Your task to perform on an android device: open app "Flipkart Online Shopping App" (install if not already installed) and enter user name: "fostered@gmail.com" and password: "negotiated" Image 0: 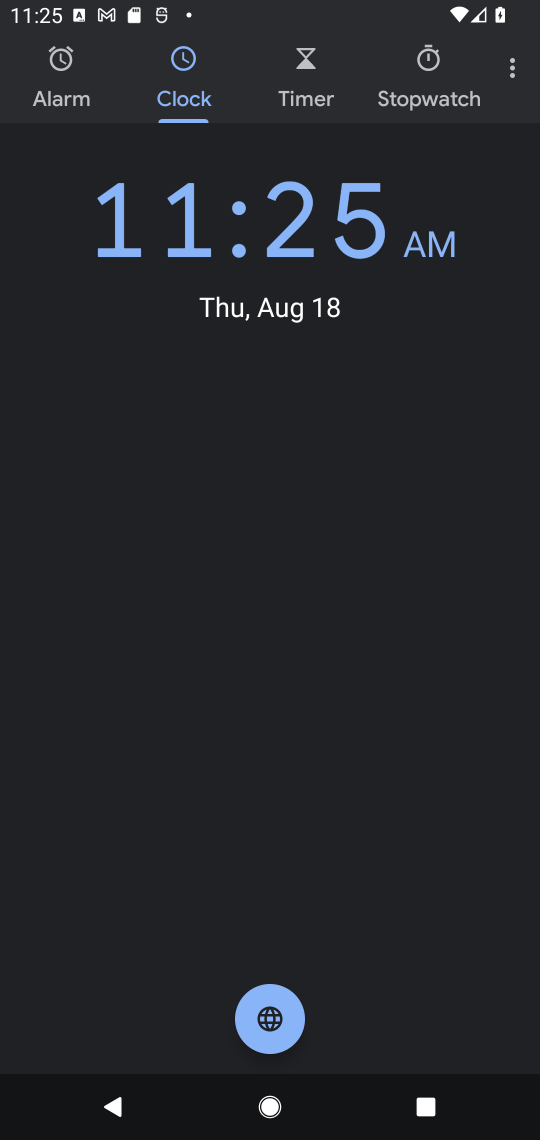
Step 0: press home button
Your task to perform on an android device: open app "Flipkart Online Shopping App" (install if not already installed) and enter user name: "fostered@gmail.com" and password: "negotiated" Image 1: 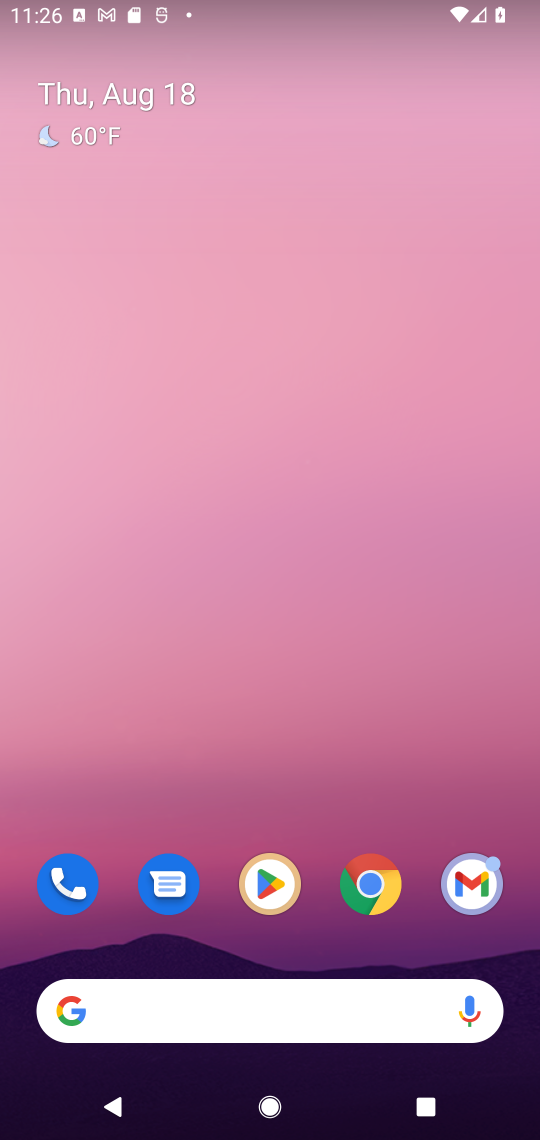
Step 1: drag from (208, 1015) to (252, 93)
Your task to perform on an android device: open app "Flipkart Online Shopping App" (install if not already installed) and enter user name: "fostered@gmail.com" and password: "negotiated" Image 2: 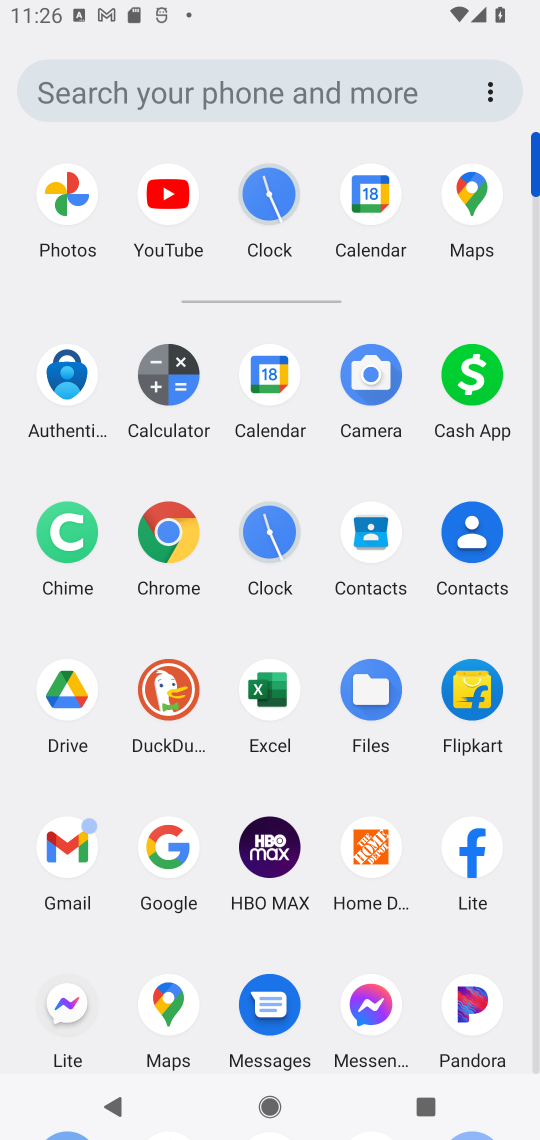
Step 2: drag from (316, 970) to (327, 429)
Your task to perform on an android device: open app "Flipkart Online Shopping App" (install if not already installed) and enter user name: "fostered@gmail.com" and password: "negotiated" Image 3: 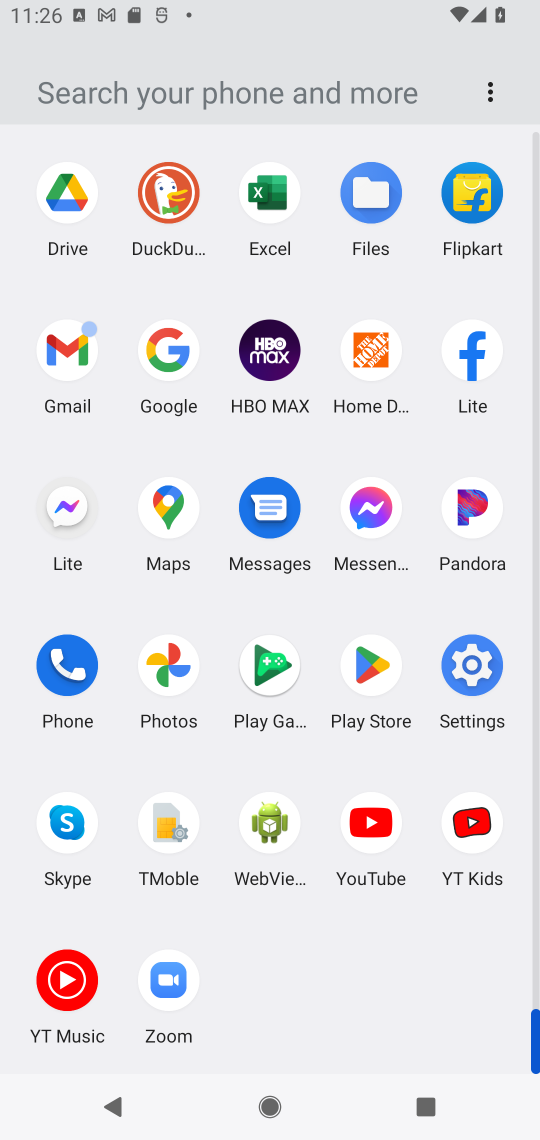
Step 3: click (369, 662)
Your task to perform on an android device: open app "Flipkart Online Shopping App" (install if not already installed) and enter user name: "fostered@gmail.com" and password: "negotiated" Image 4: 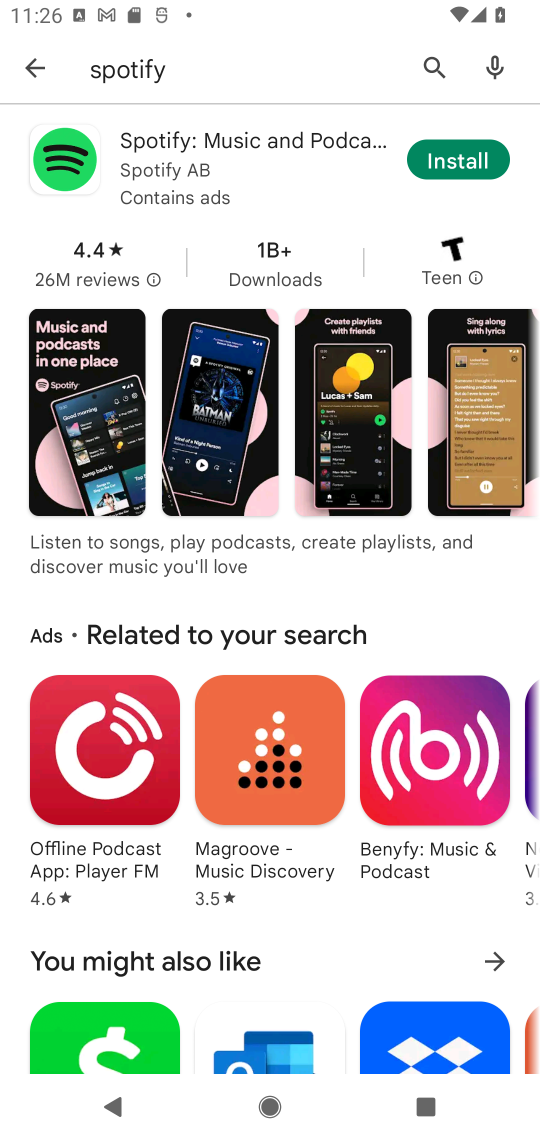
Step 4: press back button
Your task to perform on an android device: open app "Flipkart Online Shopping App" (install if not already installed) and enter user name: "fostered@gmail.com" and password: "negotiated" Image 5: 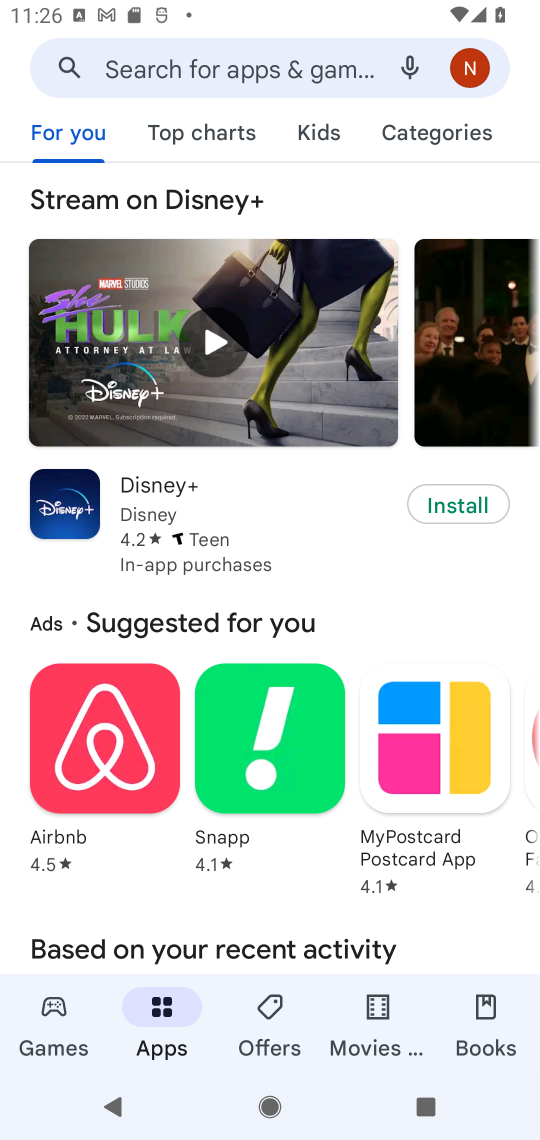
Step 5: click (263, 76)
Your task to perform on an android device: open app "Flipkart Online Shopping App" (install if not already installed) and enter user name: "fostered@gmail.com" and password: "negotiated" Image 6: 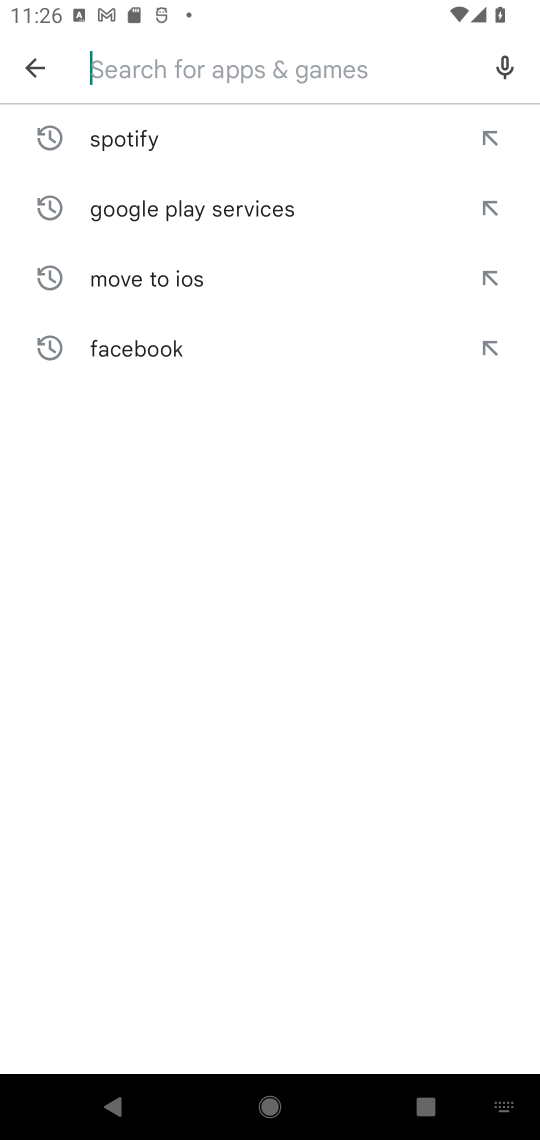
Step 6: type "Flipkart Online Shopping App"
Your task to perform on an android device: open app "Flipkart Online Shopping App" (install if not already installed) and enter user name: "fostered@gmail.com" and password: "negotiated" Image 7: 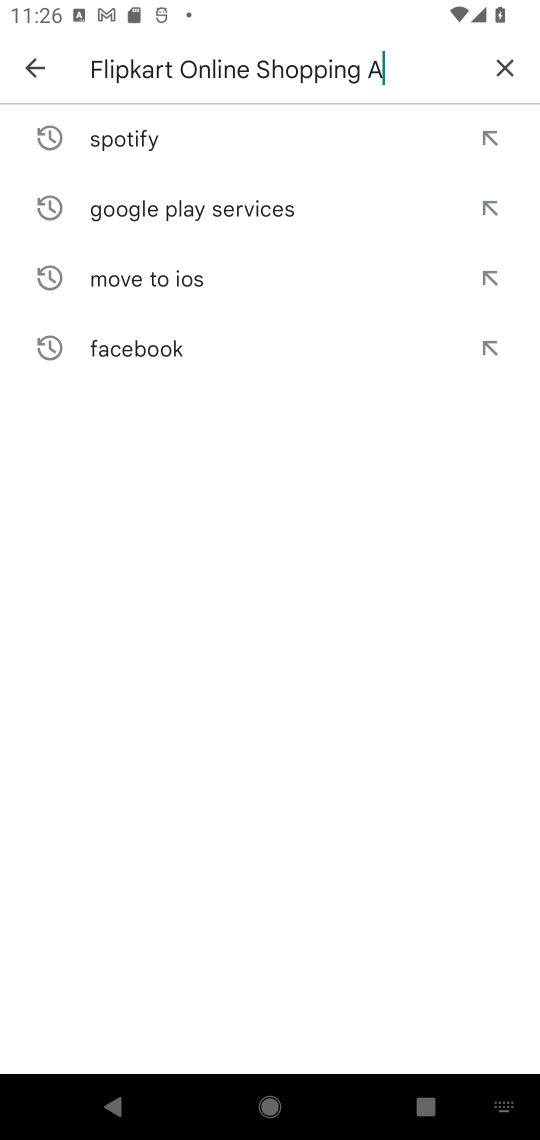
Step 7: type ""
Your task to perform on an android device: open app "Flipkart Online Shopping App" (install if not already installed) and enter user name: "fostered@gmail.com" and password: "negotiated" Image 8: 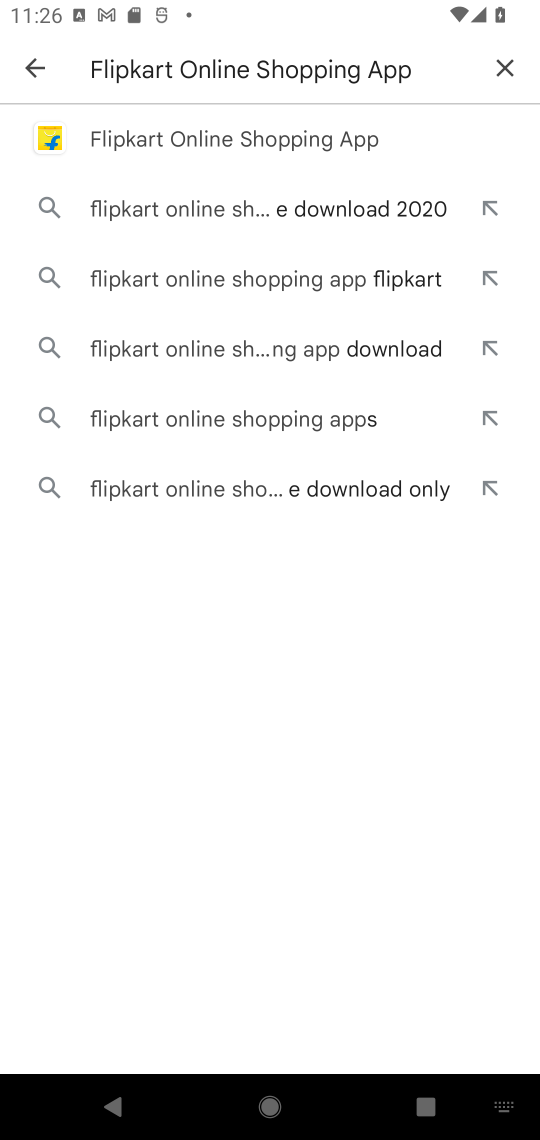
Step 8: click (180, 141)
Your task to perform on an android device: open app "Flipkart Online Shopping App" (install if not already installed) and enter user name: "fostered@gmail.com" and password: "negotiated" Image 9: 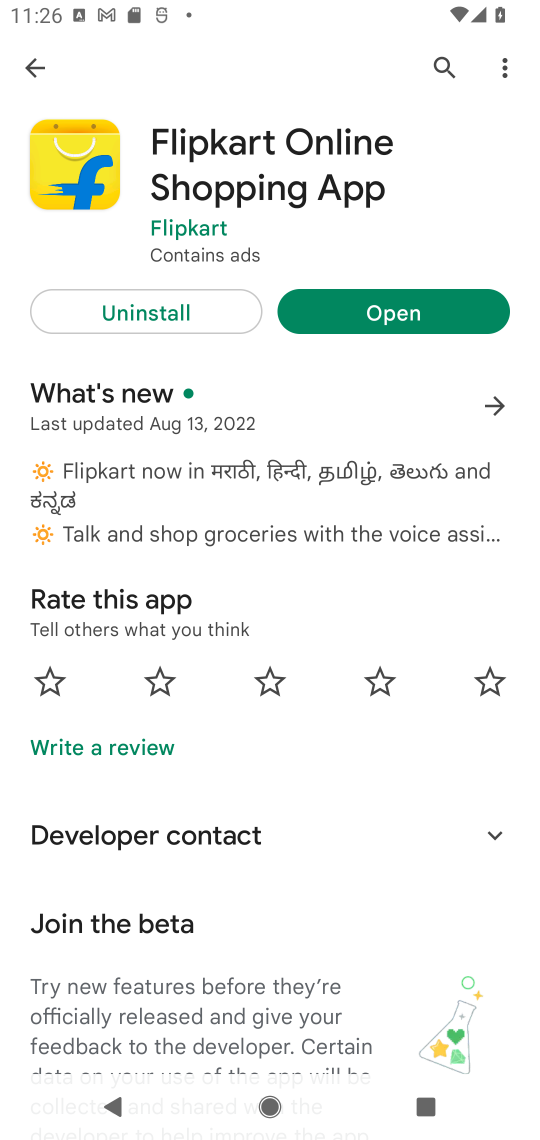
Step 9: click (398, 313)
Your task to perform on an android device: open app "Flipkart Online Shopping App" (install if not already installed) and enter user name: "fostered@gmail.com" and password: "negotiated" Image 10: 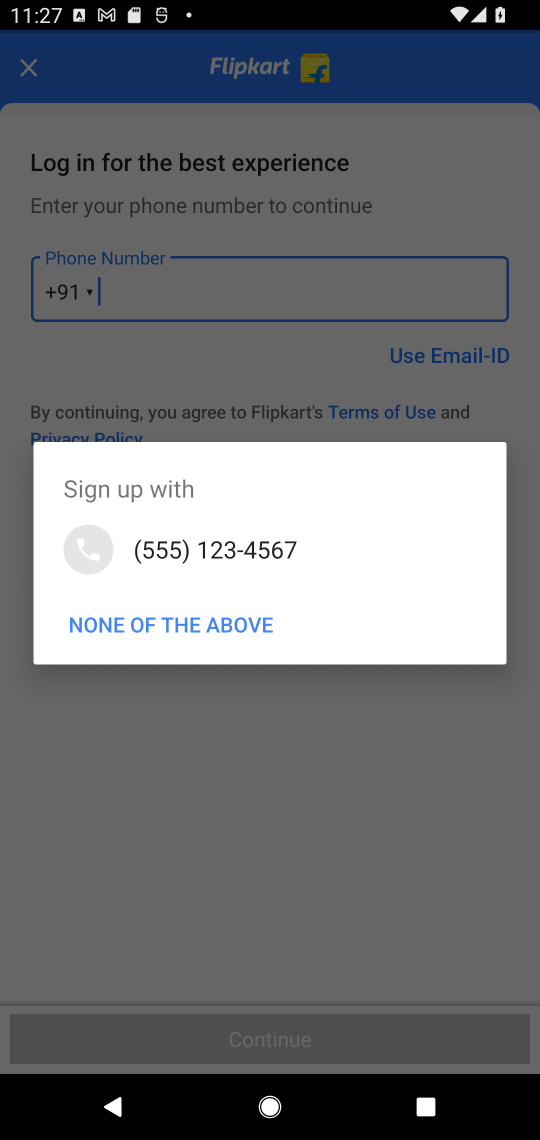
Step 10: click (216, 550)
Your task to perform on an android device: open app "Flipkart Online Shopping App" (install if not already installed) and enter user name: "fostered@gmail.com" and password: "negotiated" Image 11: 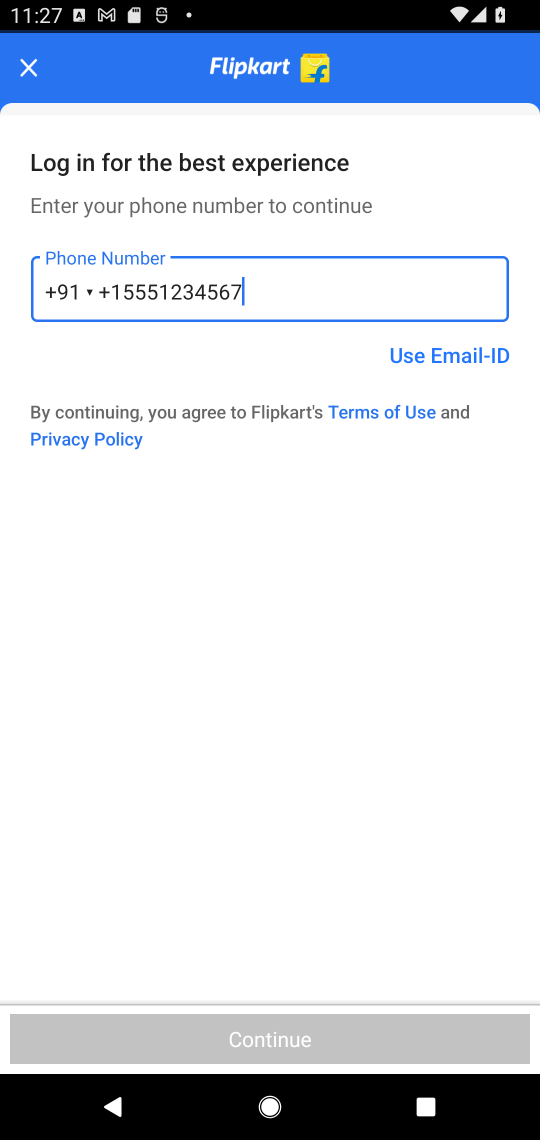
Step 11: click (434, 364)
Your task to perform on an android device: open app "Flipkart Online Shopping App" (install if not already installed) and enter user name: "fostered@gmail.com" and password: "negotiated" Image 12: 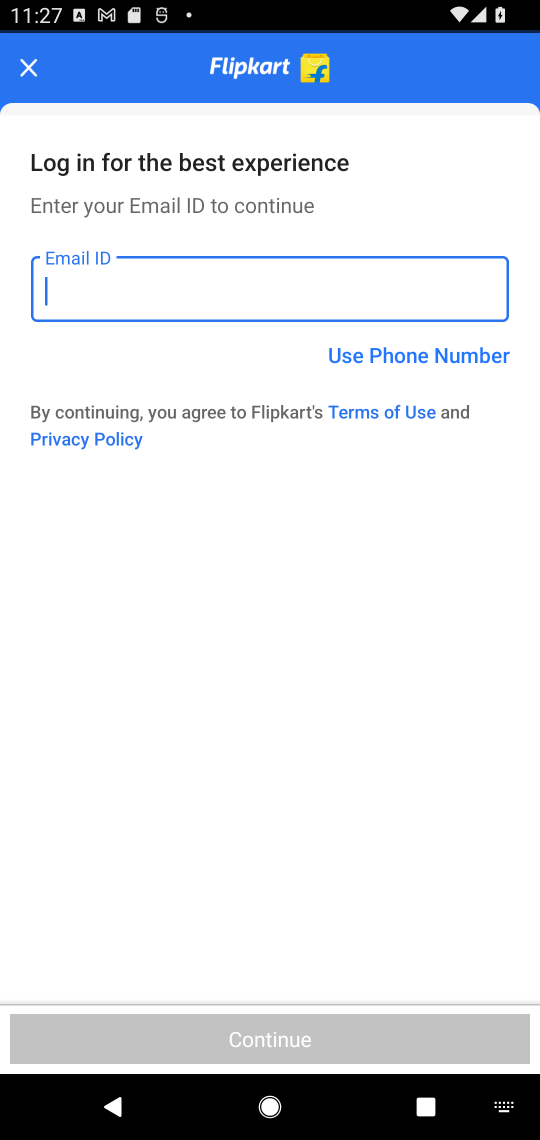
Step 12: click (151, 263)
Your task to perform on an android device: open app "Flipkart Online Shopping App" (install if not already installed) and enter user name: "fostered@gmail.com" and password: "negotiated" Image 13: 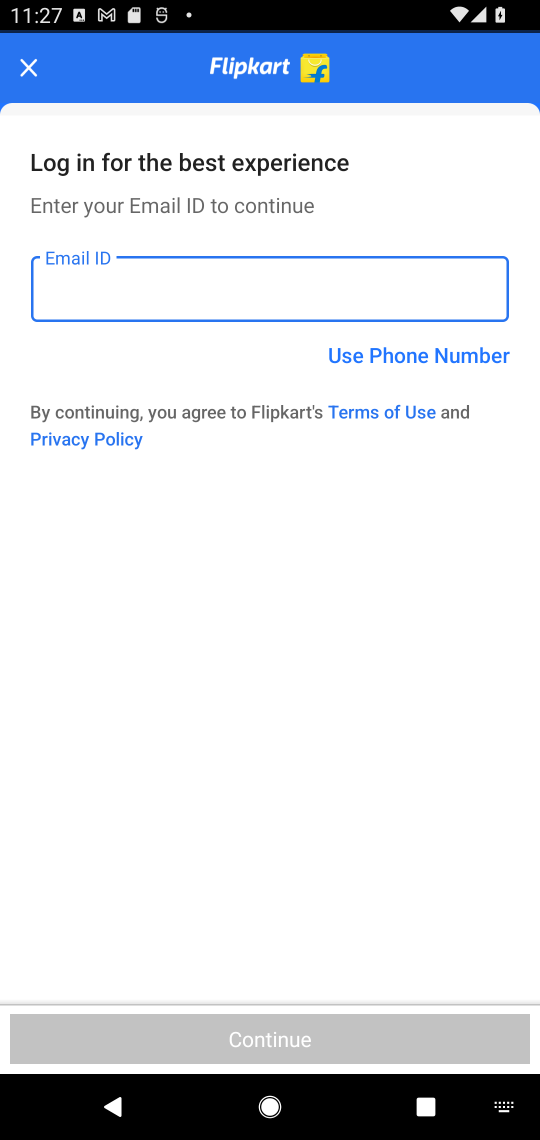
Step 13: type "fostered@gmail.com"
Your task to perform on an android device: open app "Flipkart Online Shopping App" (install if not already installed) and enter user name: "fostered@gmail.com" and password: "negotiated" Image 14: 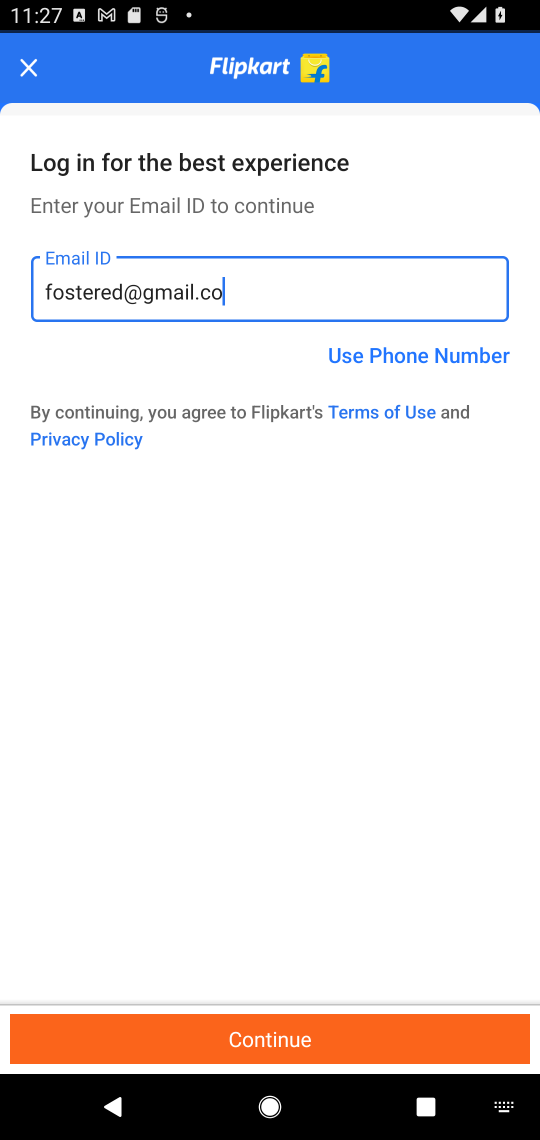
Step 14: type ""
Your task to perform on an android device: open app "Flipkart Online Shopping App" (install if not already installed) and enter user name: "fostered@gmail.com" and password: "negotiated" Image 15: 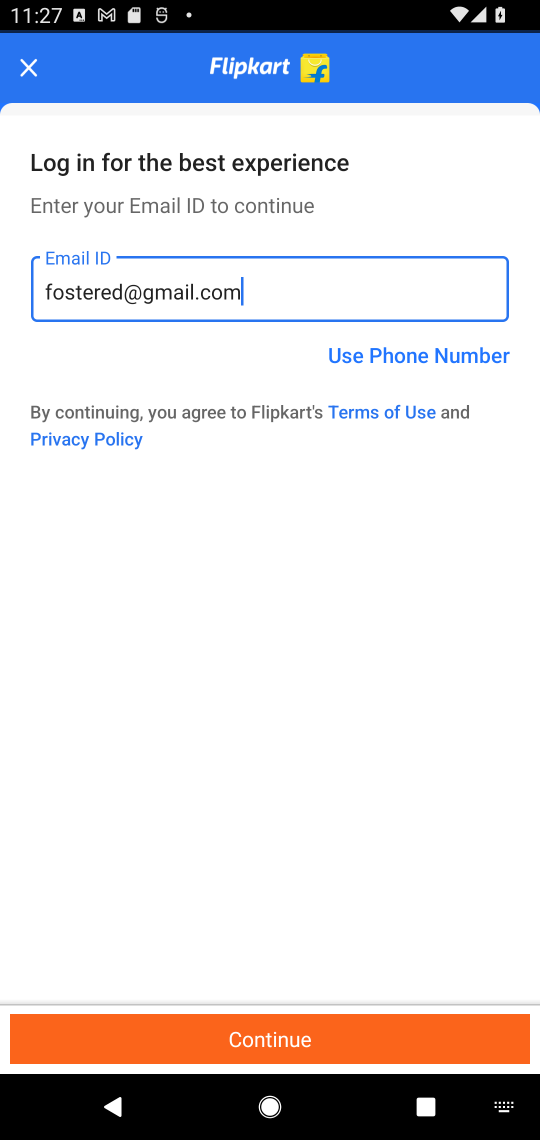
Step 15: click (286, 1031)
Your task to perform on an android device: open app "Flipkart Online Shopping App" (install if not already installed) and enter user name: "fostered@gmail.com" and password: "negotiated" Image 16: 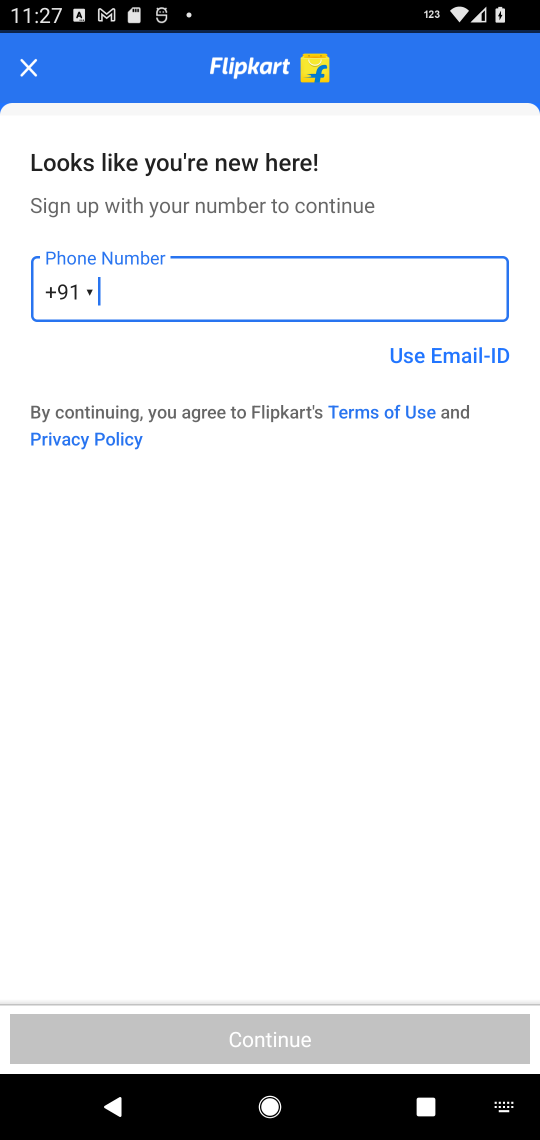
Step 16: task complete